Your task to perform on an android device: create a new album in the google photos Image 0: 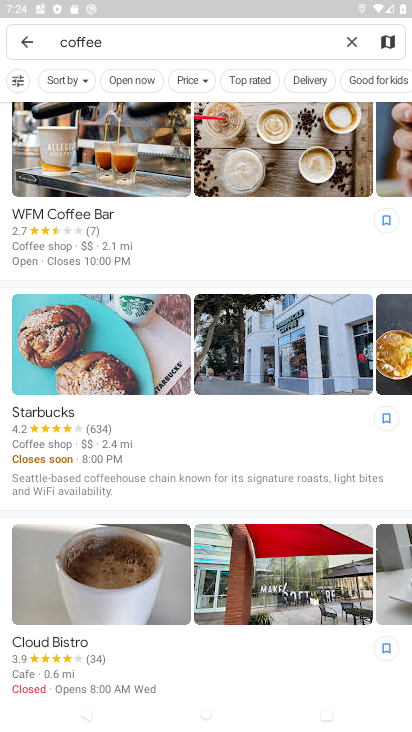
Step 0: press home button
Your task to perform on an android device: create a new album in the google photos Image 1: 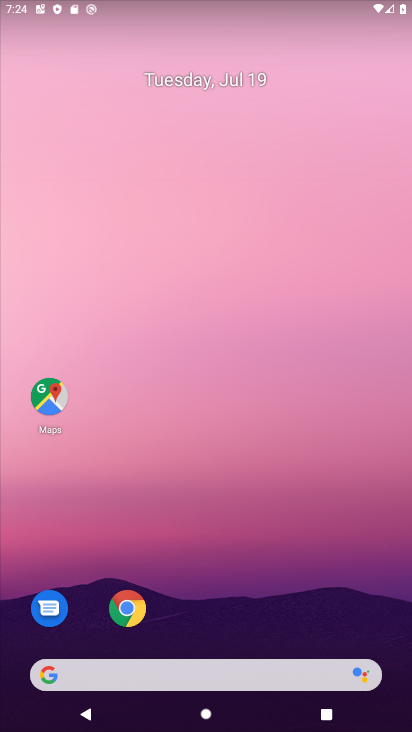
Step 1: drag from (212, 674) to (411, 167)
Your task to perform on an android device: create a new album in the google photos Image 2: 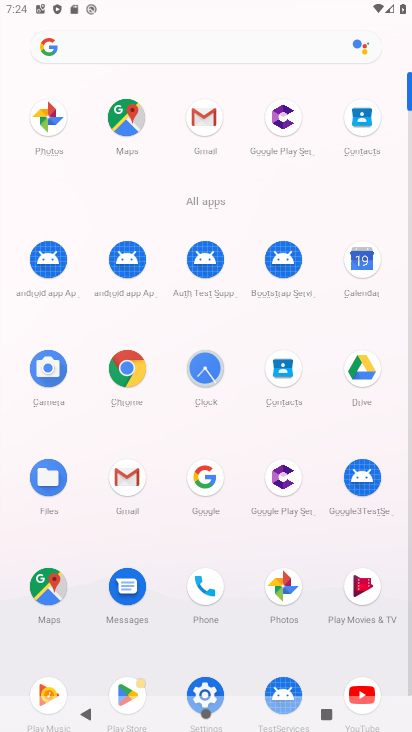
Step 2: click (283, 583)
Your task to perform on an android device: create a new album in the google photos Image 3: 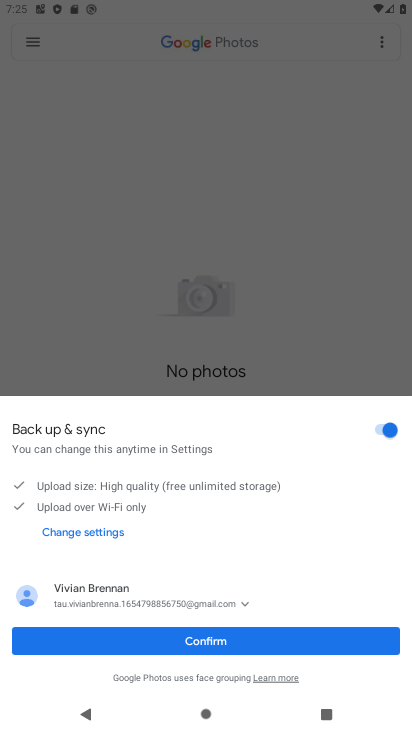
Step 3: click (212, 638)
Your task to perform on an android device: create a new album in the google photos Image 4: 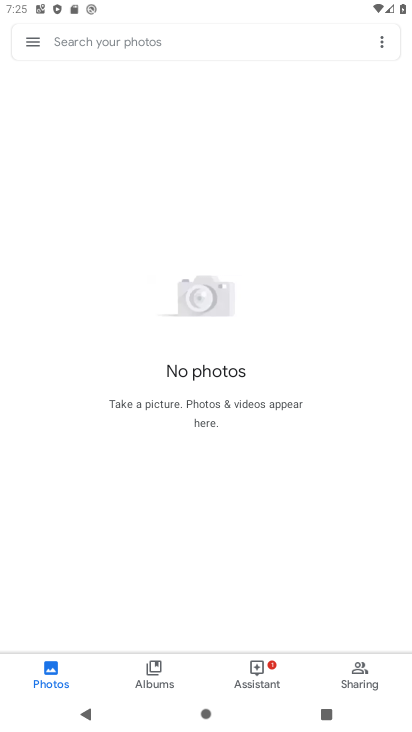
Step 4: click (152, 670)
Your task to perform on an android device: create a new album in the google photos Image 5: 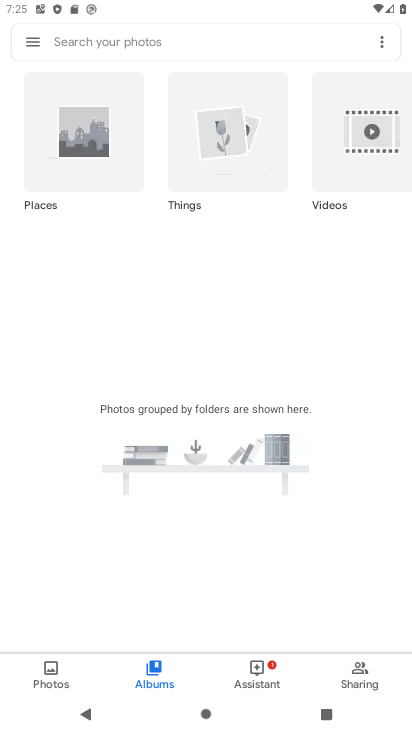
Step 5: task complete